Your task to perform on an android device: Search for "apple airpods pro" on ebay, select the first entry, add it to the cart, then select checkout. Image 0: 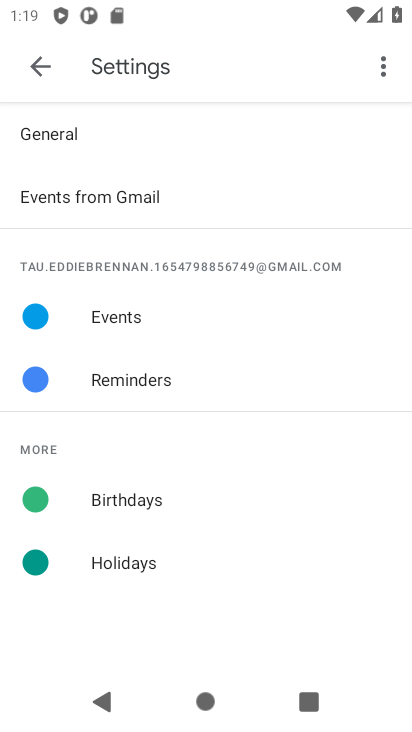
Step 0: press home button
Your task to perform on an android device: Search for "apple airpods pro" on ebay, select the first entry, add it to the cart, then select checkout. Image 1: 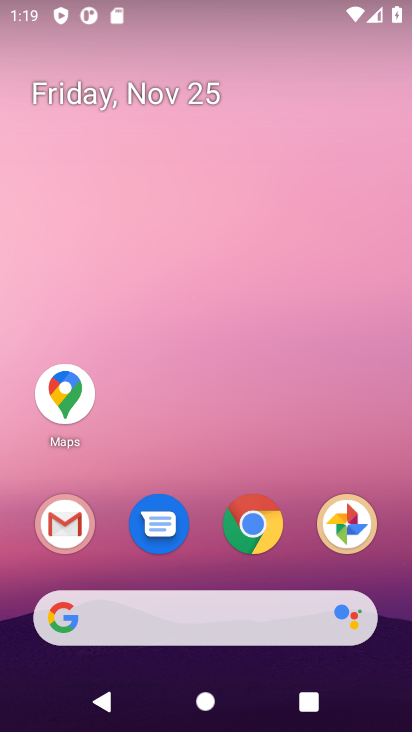
Step 1: click (241, 532)
Your task to perform on an android device: Search for "apple airpods pro" on ebay, select the first entry, add it to the cart, then select checkout. Image 2: 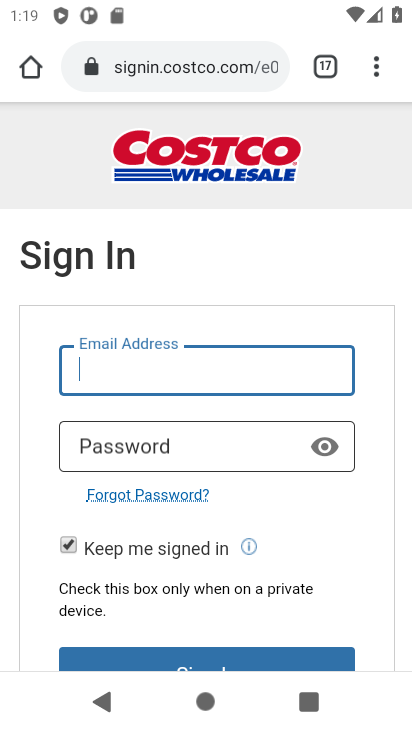
Step 2: click (185, 84)
Your task to perform on an android device: Search for "apple airpods pro" on ebay, select the first entry, add it to the cart, then select checkout. Image 3: 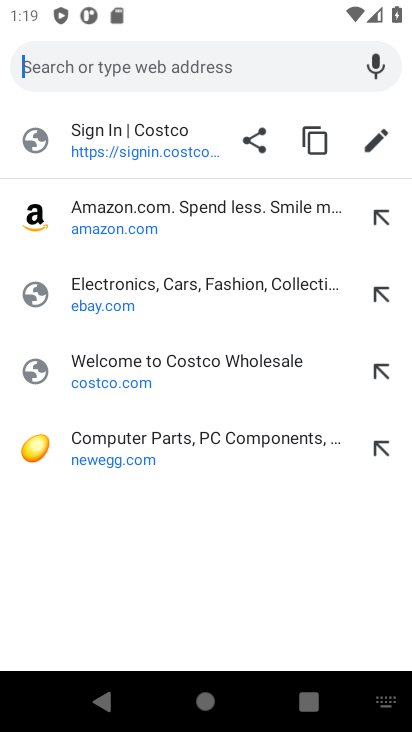
Step 3: click (84, 297)
Your task to perform on an android device: Search for "apple airpods pro" on ebay, select the first entry, add it to the cart, then select checkout. Image 4: 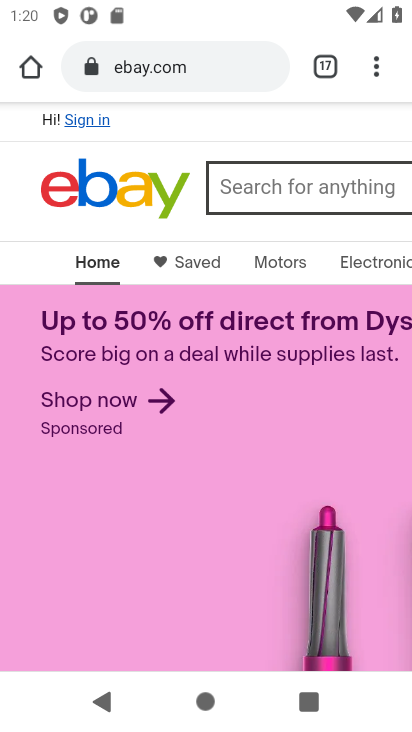
Step 4: click (302, 189)
Your task to perform on an android device: Search for "apple airpods pro" on ebay, select the first entry, add it to the cart, then select checkout. Image 5: 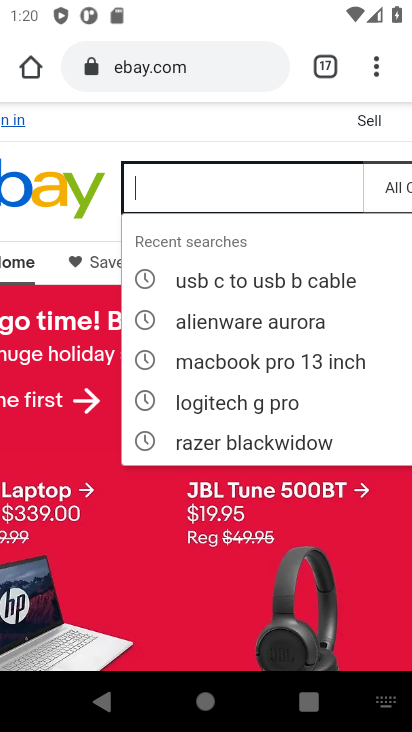
Step 5: type "apple airpods pro"
Your task to perform on an android device: Search for "apple airpods pro" on ebay, select the first entry, add it to the cart, then select checkout. Image 6: 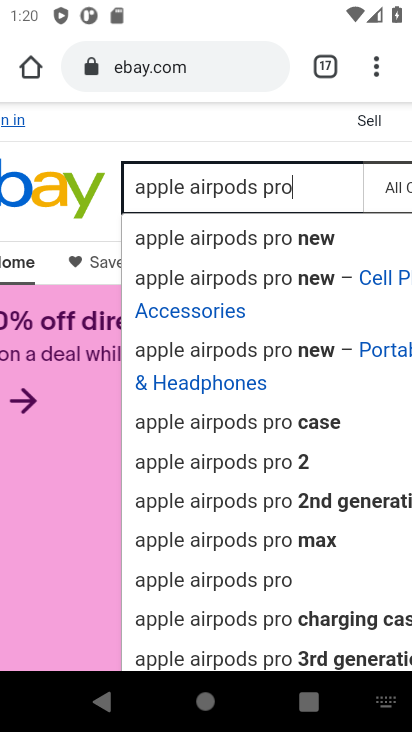
Step 6: click (195, 574)
Your task to perform on an android device: Search for "apple airpods pro" on ebay, select the first entry, add it to the cart, then select checkout. Image 7: 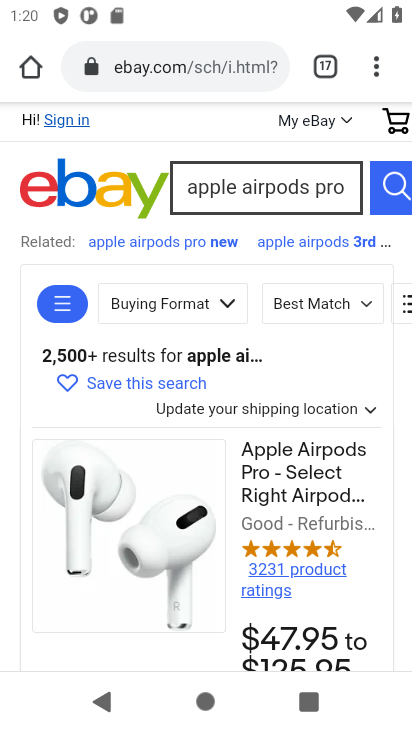
Step 7: drag from (138, 527) to (152, 397)
Your task to perform on an android device: Search for "apple airpods pro" on ebay, select the first entry, add it to the cart, then select checkout. Image 8: 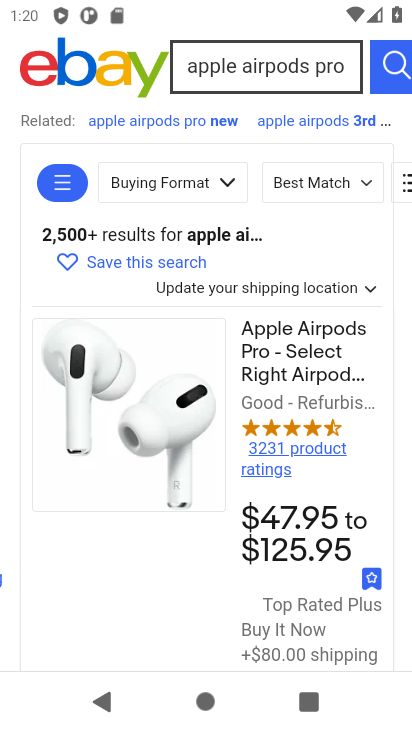
Step 8: click (123, 465)
Your task to perform on an android device: Search for "apple airpods pro" on ebay, select the first entry, add it to the cart, then select checkout. Image 9: 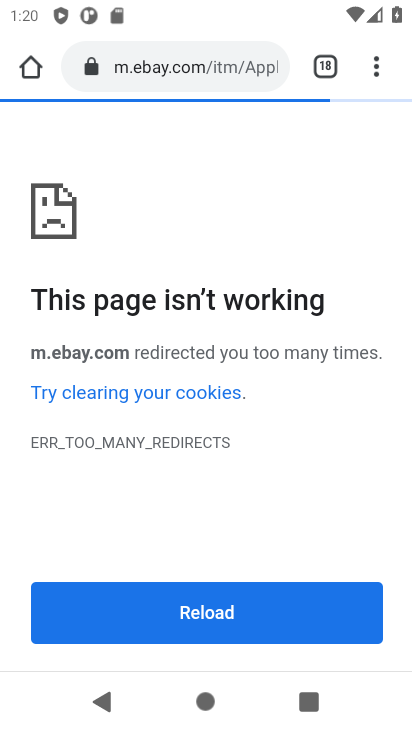
Step 9: task complete